Your task to perform on an android device: turn vacation reply on in the gmail app Image 0: 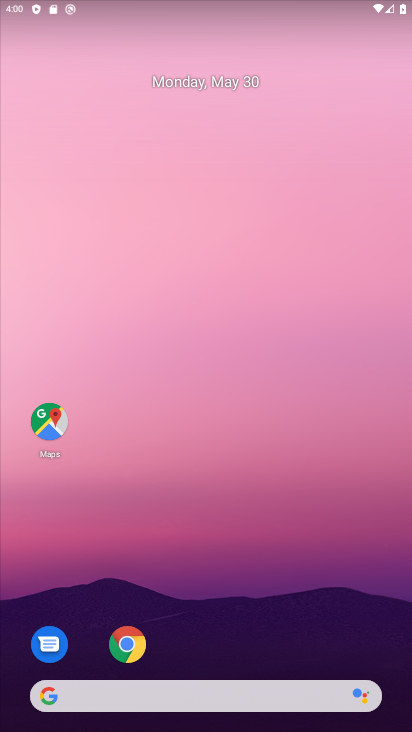
Step 0: drag from (179, 638) to (207, 25)
Your task to perform on an android device: turn vacation reply on in the gmail app Image 1: 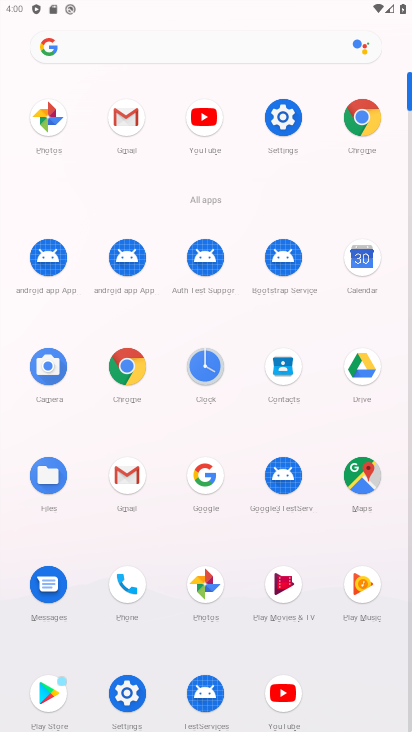
Step 1: click (124, 114)
Your task to perform on an android device: turn vacation reply on in the gmail app Image 2: 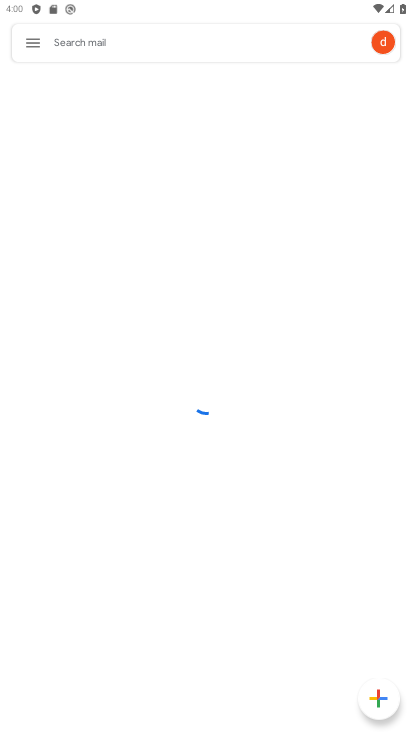
Step 2: click (33, 41)
Your task to perform on an android device: turn vacation reply on in the gmail app Image 3: 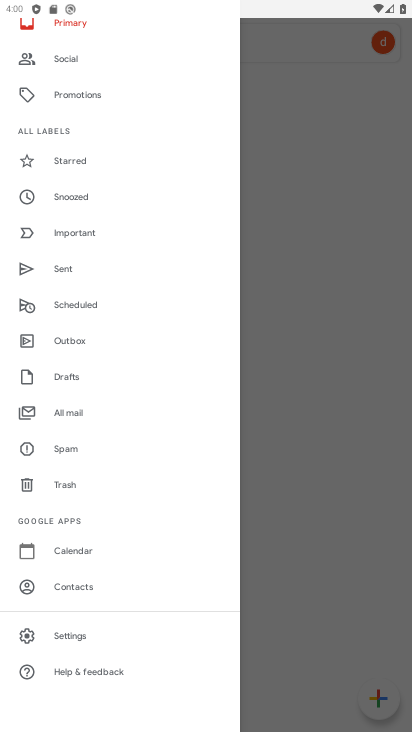
Step 3: click (83, 640)
Your task to perform on an android device: turn vacation reply on in the gmail app Image 4: 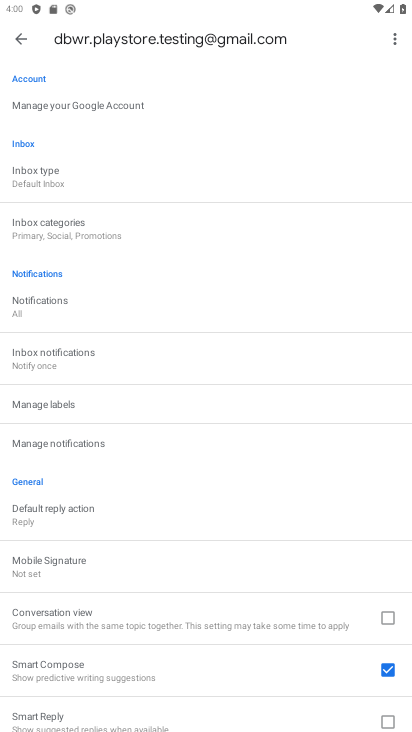
Step 4: drag from (194, 594) to (191, 320)
Your task to perform on an android device: turn vacation reply on in the gmail app Image 5: 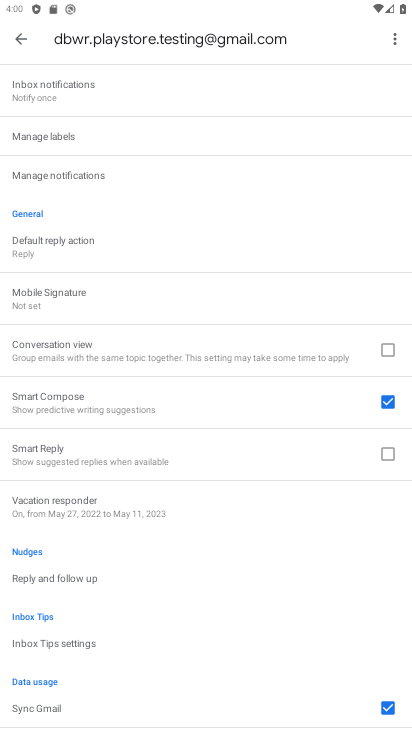
Step 5: drag from (152, 583) to (178, 245)
Your task to perform on an android device: turn vacation reply on in the gmail app Image 6: 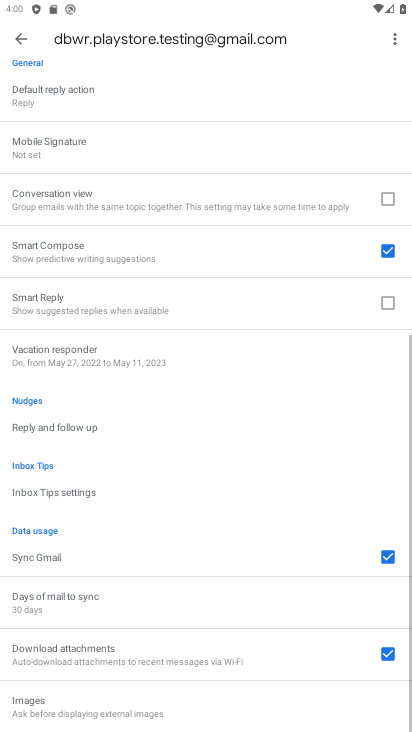
Step 6: click (159, 516)
Your task to perform on an android device: turn vacation reply on in the gmail app Image 7: 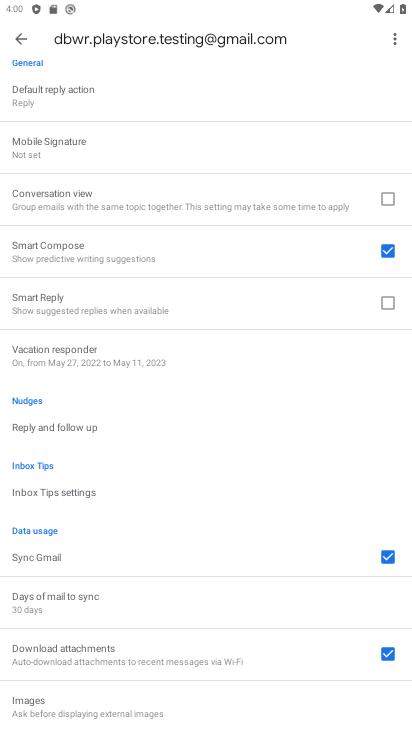
Step 7: click (131, 360)
Your task to perform on an android device: turn vacation reply on in the gmail app Image 8: 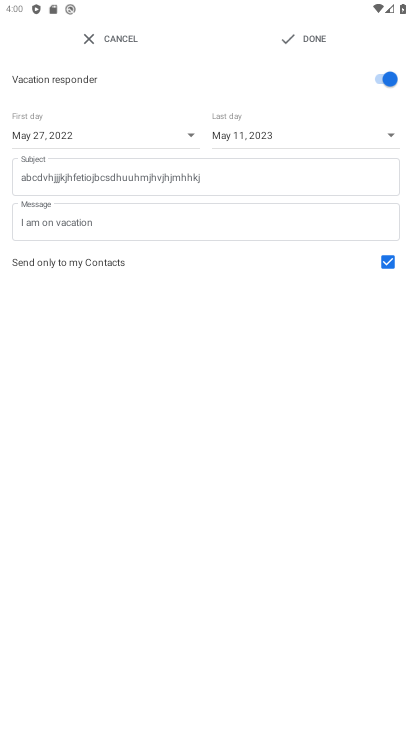
Step 8: click (295, 22)
Your task to perform on an android device: turn vacation reply on in the gmail app Image 9: 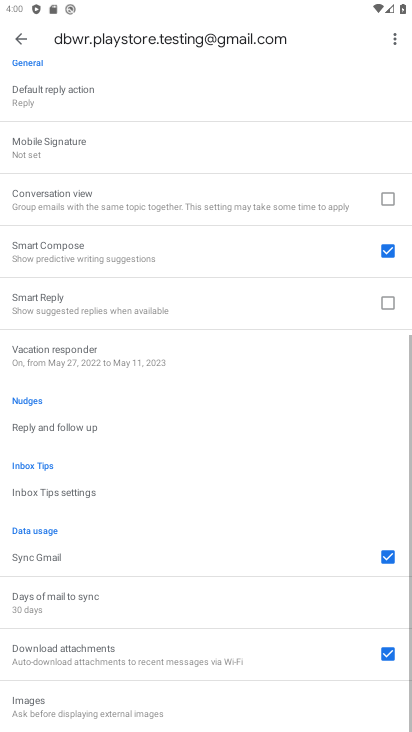
Step 9: task complete